Your task to perform on an android device: star an email in the gmail app Image 0: 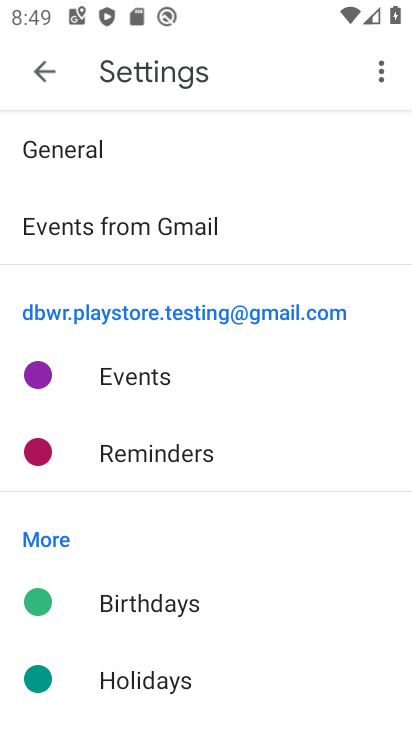
Step 0: press home button
Your task to perform on an android device: star an email in the gmail app Image 1: 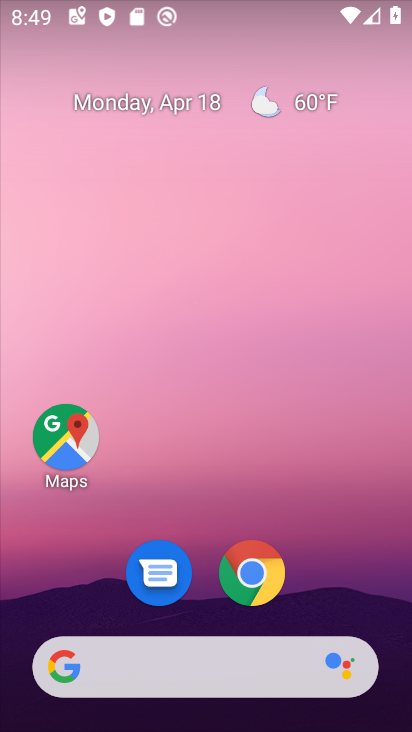
Step 1: drag from (339, 531) to (312, 83)
Your task to perform on an android device: star an email in the gmail app Image 2: 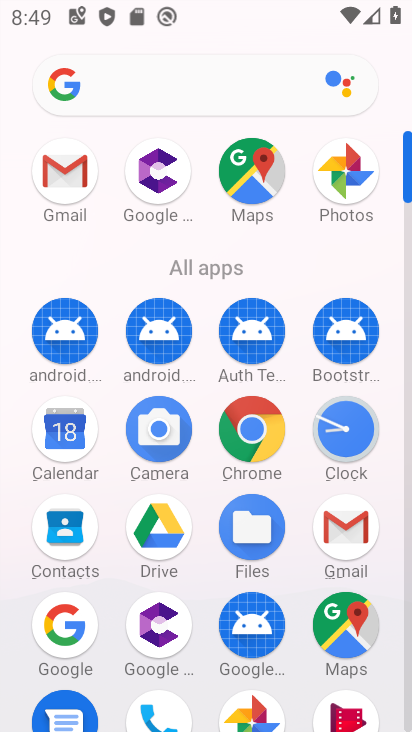
Step 2: click (346, 534)
Your task to perform on an android device: star an email in the gmail app Image 3: 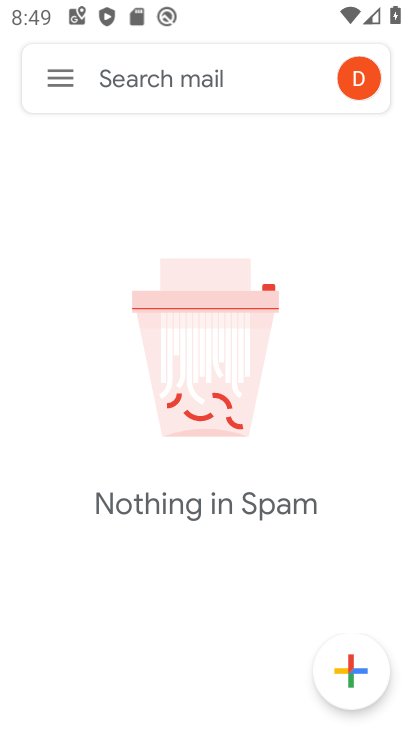
Step 3: click (62, 86)
Your task to perform on an android device: star an email in the gmail app Image 4: 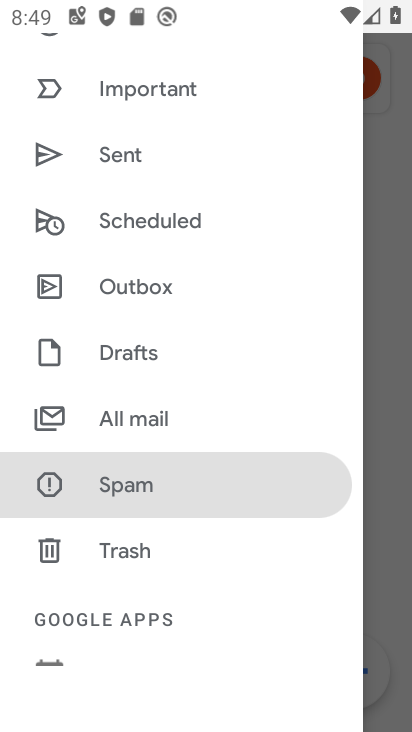
Step 4: drag from (117, 151) to (122, 641)
Your task to perform on an android device: star an email in the gmail app Image 5: 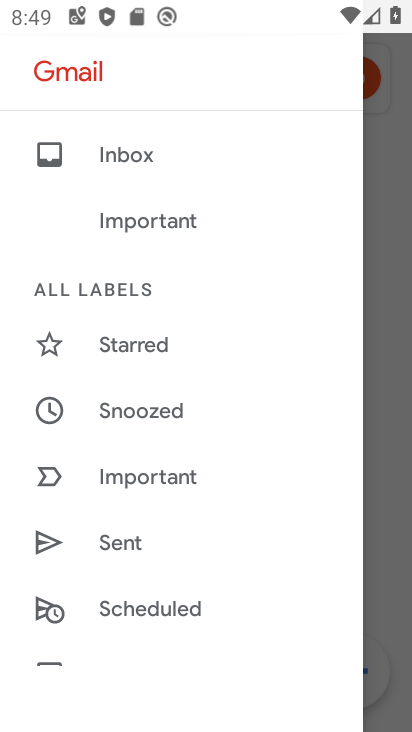
Step 5: click (136, 147)
Your task to perform on an android device: star an email in the gmail app Image 6: 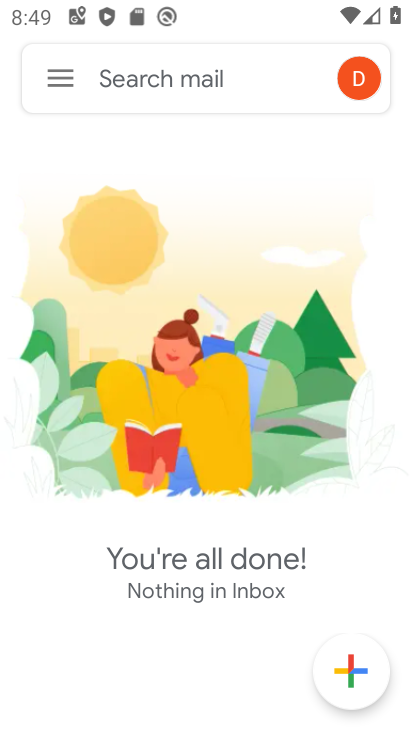
Step 6: task complete